Your task to perform on an android device: Open Amazon Image 0: 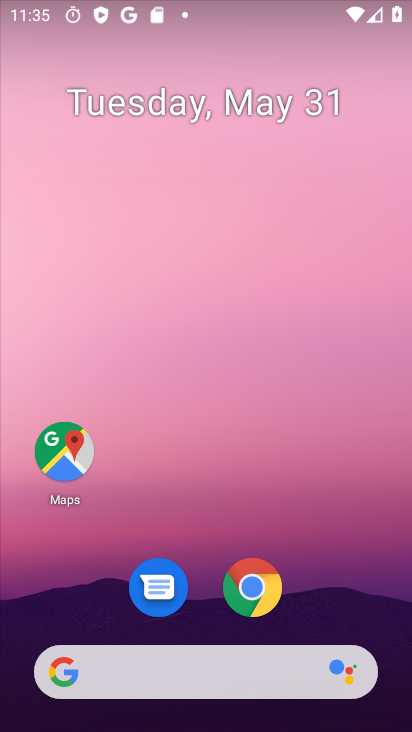
Step 0: click (254, 588)
Your task to perform on an android device: Open Amazon Image 1: 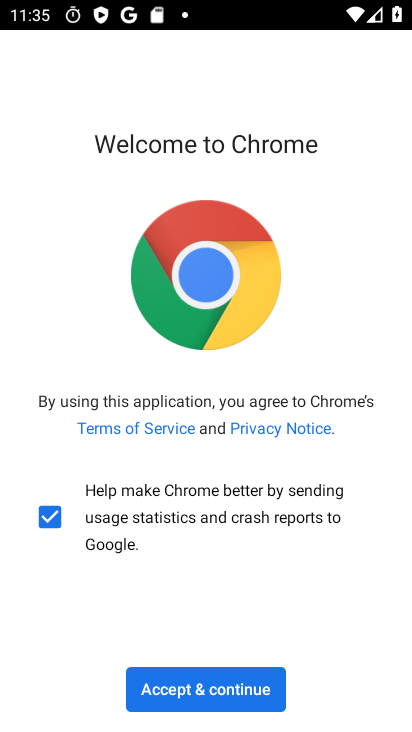
Step 1: click (198, 687)
Your task to perform on an android device: Open Amazon Image 2: 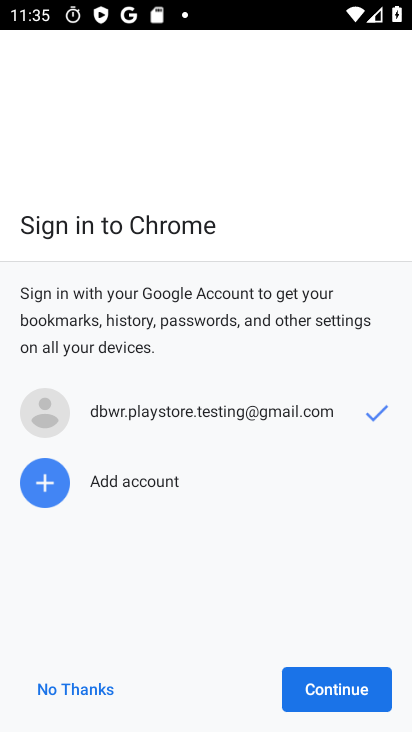
Step 2: click (351, 689)
Your task to perform on an android device: Open Amazon Image 3: 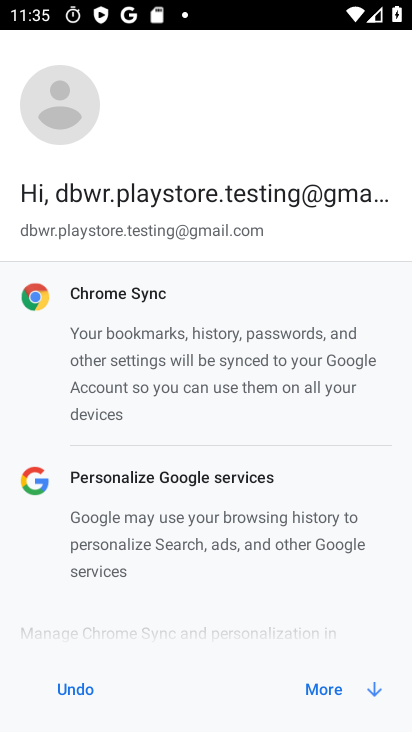
Step 3: click (351, 689)
Your task to perform on an android device: Open Amazon Image 4: 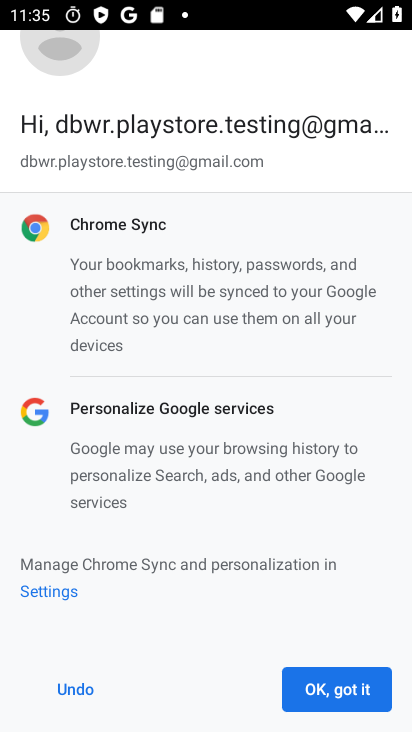
Step 4: click (351, 689)
Your task to perform on an android device: Open Amazon Image 5: 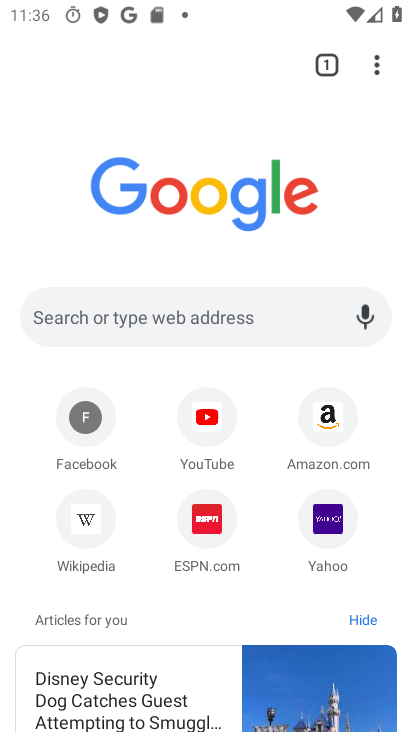
Step 5: click (326, 408)
Your task to perform on an android device: Open Amazon Image 6: 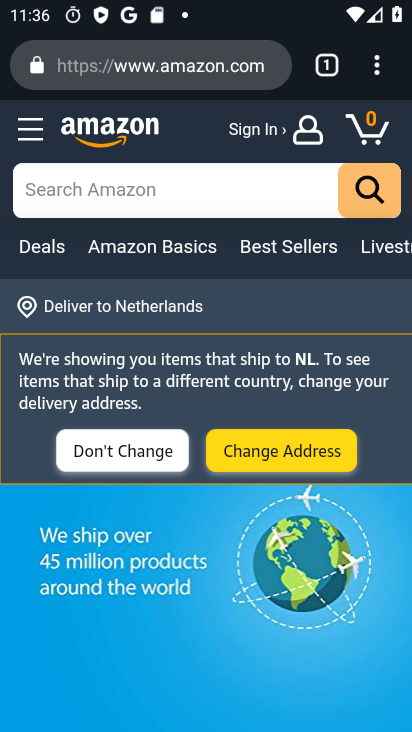
Step 6: task complete